Your task to perform on an android device: Open Wikipedia Image 0: 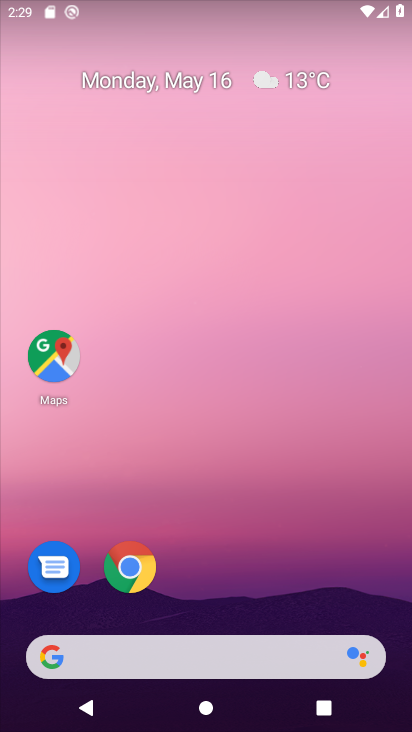
Step 0: click (143, 563)
Your task to perform on an android device: Open Wikipedia Image 1: 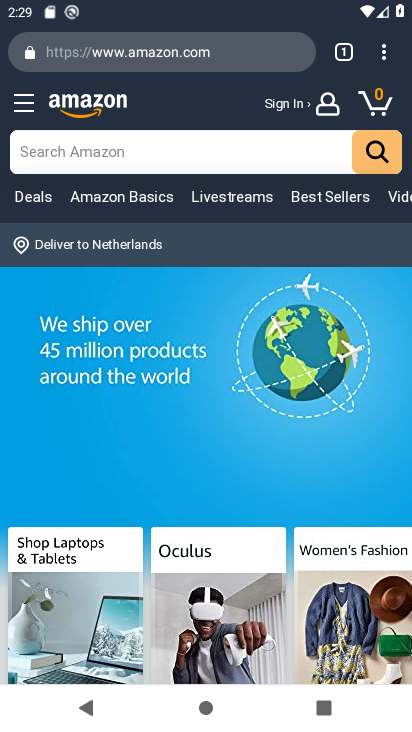
Step 1: click (349, 62)
Your task to perform on an android device: Open Wikipedia Image 2: 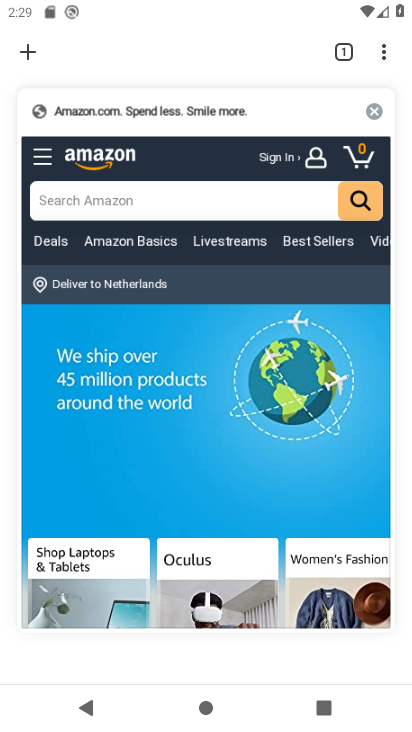
Step 2: click (24, 45)
Your task to perform on an android device: Open Wikipedia Image 3: 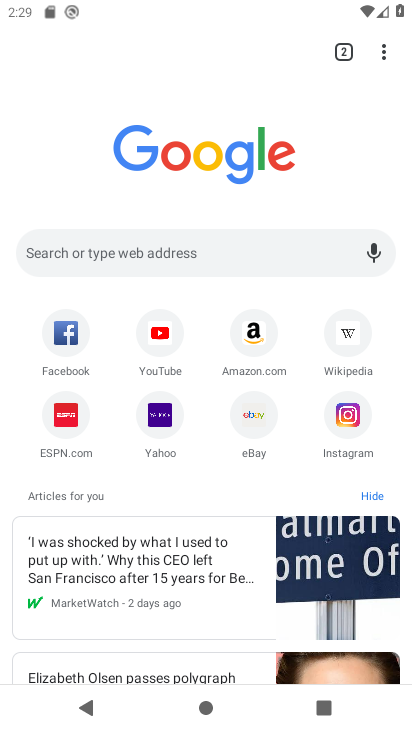
Step 3: click (342, 331)
Your task to perform on an android device: Open Wikipedia Image 4: 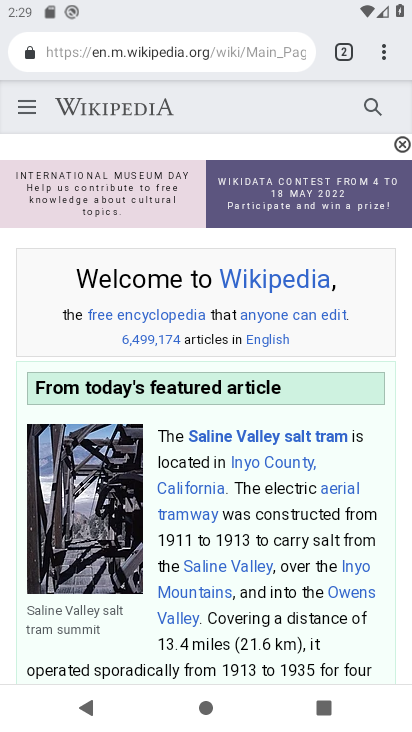
Step 4: task complete